Your task to perform on an android device: check android version Image 0: 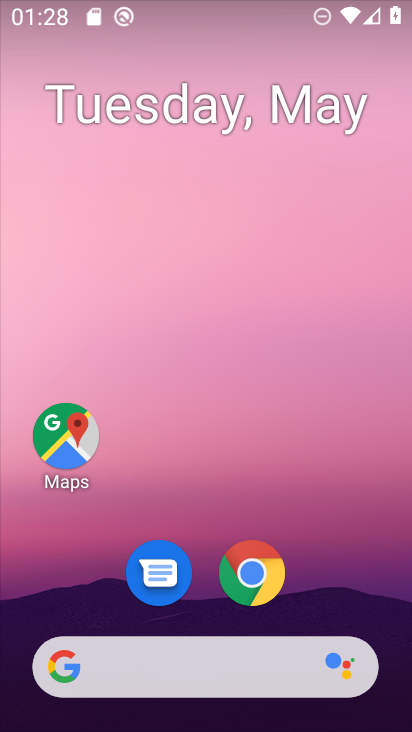
Step 0: press home button
Your task to perform on an android device: check android version Image 1: 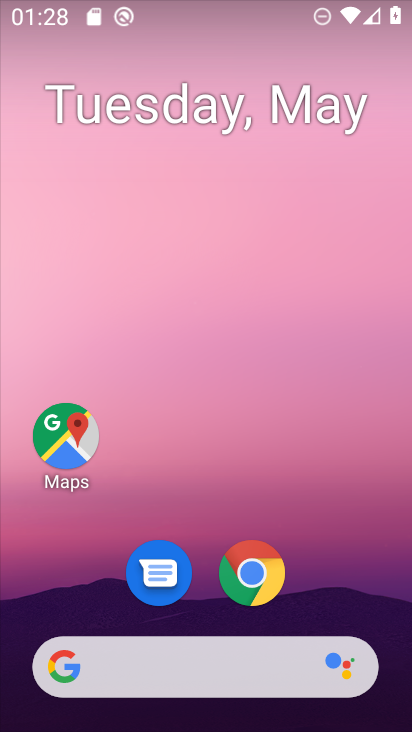
Step 1: drag from (339, 562) to (205, 24)
Your task to perform on an android device: check android version Image 2: 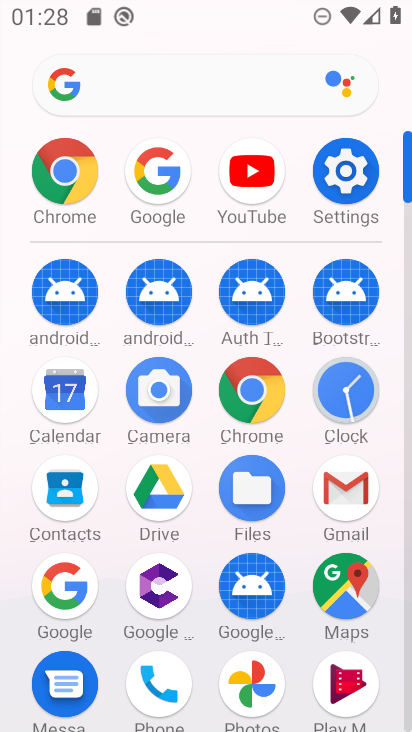
Step 2: click (364, 176)
Your task to perform on an android device: check android version Image 3: 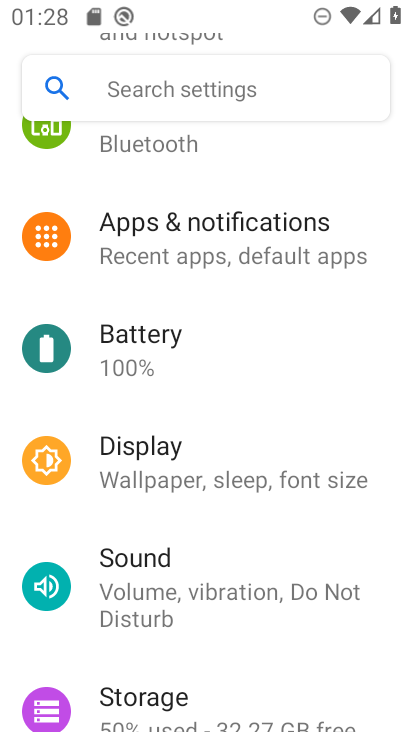
Step 3: drag from (247, 627) to (195, 193)
Your task to perform on an android device: check android version Image 4: 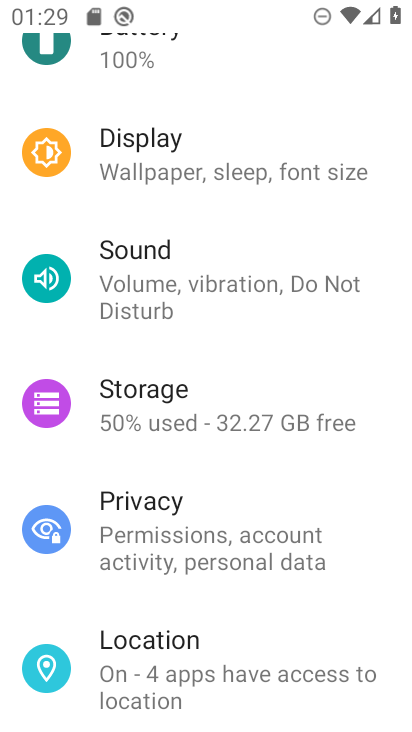
Step 4: drag from (280, 637) to (221, 168)
Your task to perform on an android device: check android version Image 5: 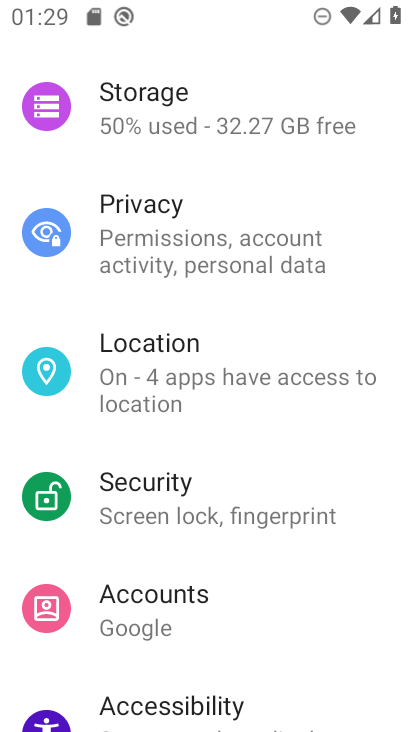
Step 5: drag from (226, 644) to (226, 139)
Your task to perform on an android device: check android version Image 6: 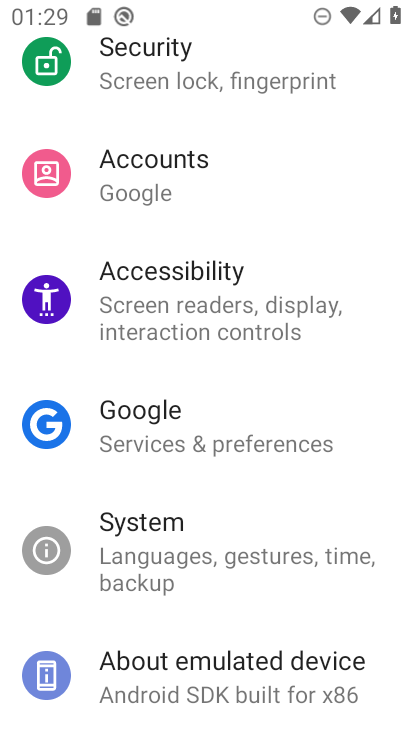
Step 6: drag from (231, 612) to (227, 168)
Your task to perform on an android device: check android version Image 7: 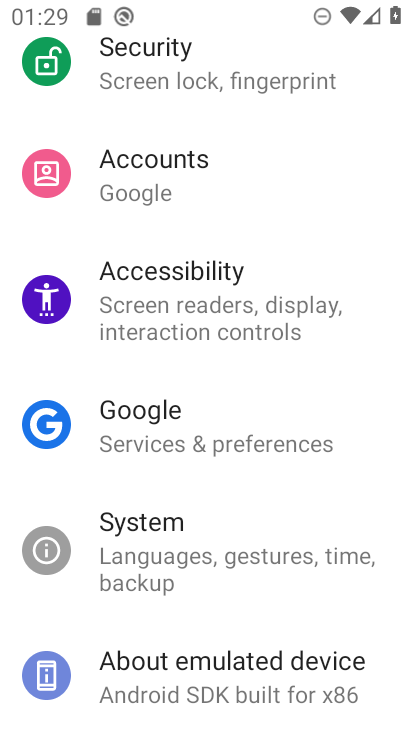
Step 7: click (221, 663)
Your task to perform on an android device: check android version Image 8: 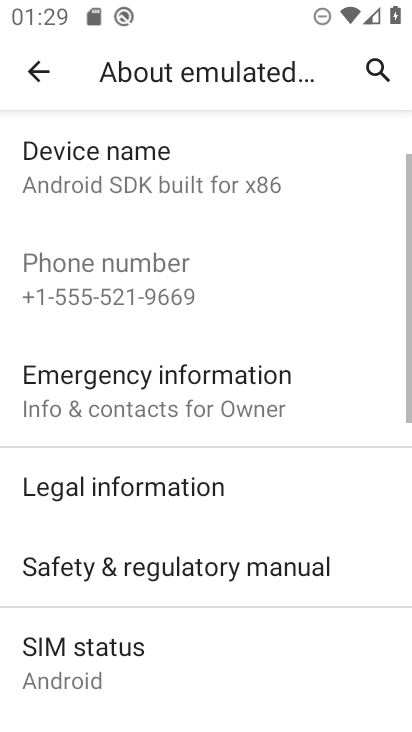
Step 8: drag from (181, 653) to (179, 297)
Your task to perform on an android device: check android version Image 9: 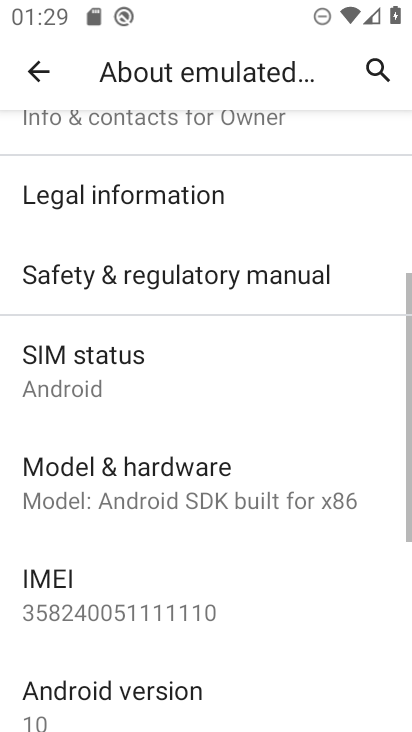
Step 9: drag from (168, 640) to (202, 331)
Your task to perform on an android device: check android version Image 10: 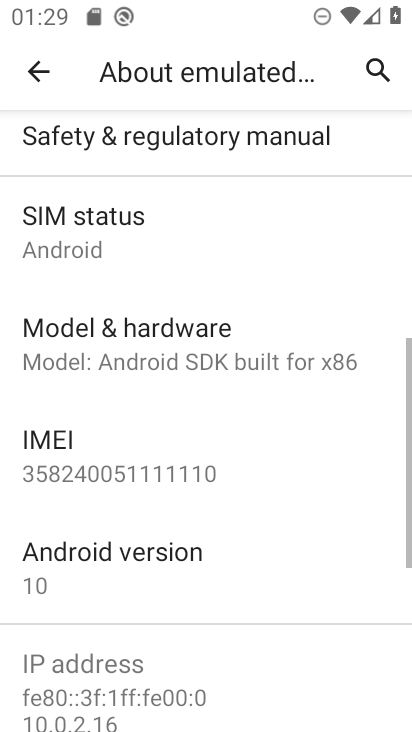
Step 10: click (145, 551)
Your task to perform on an android device: check android version Image 11: 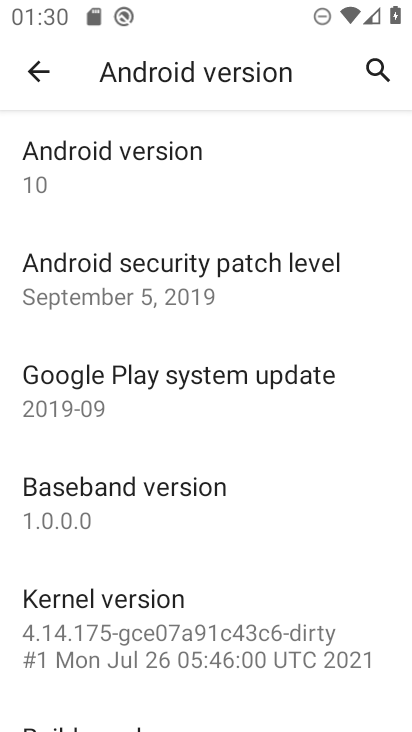
Step 11: task complete